Your task to perform on an android device: Show me recent news Image 0: 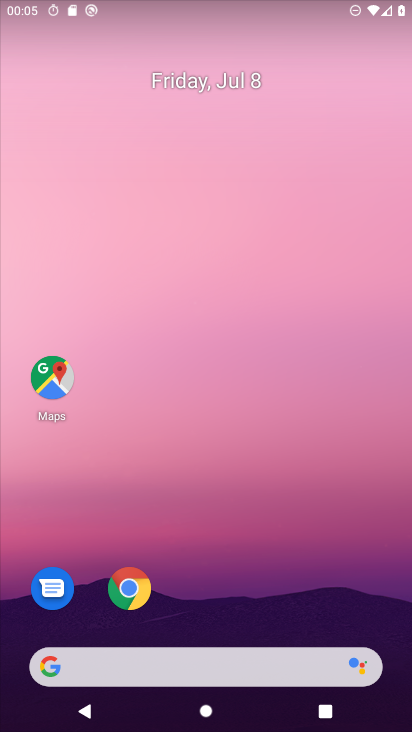
Step 0: drag from (255, 597) to (216, 89)
Your task to perform on an android device: Show me recent news Image 1: 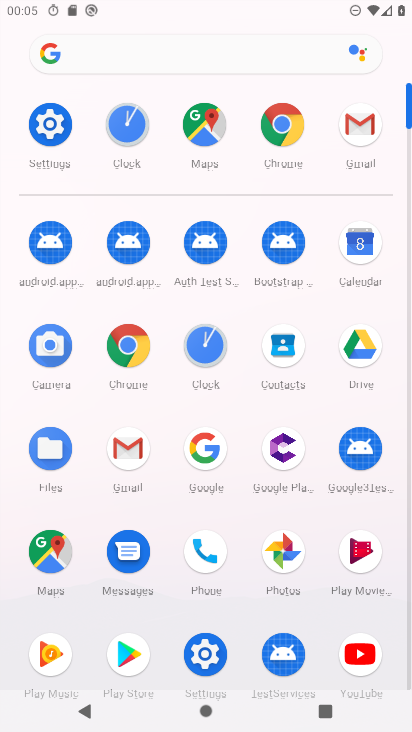
Step 1: click (278, 109)
Your task to perform on an android device: Show me recent news Image 2: 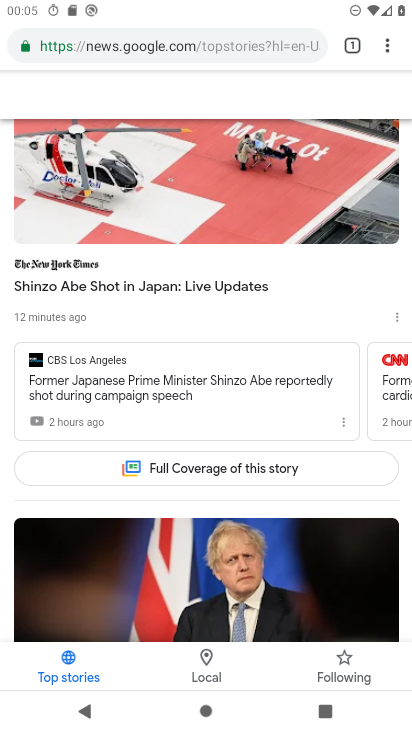
Step 2: click (245, 48)
Your task to perform on an android device: Show me recent news Image 3: 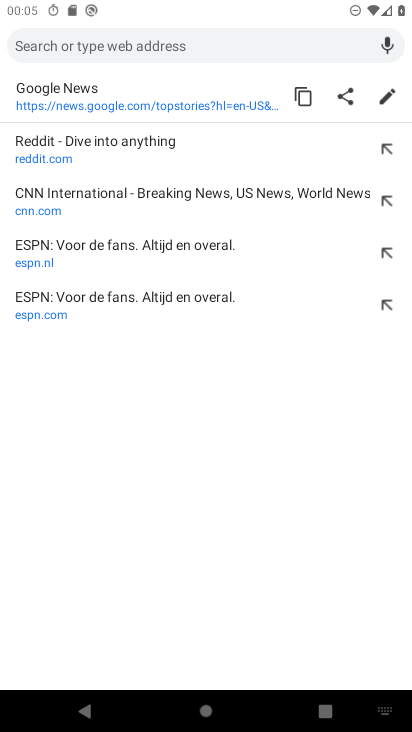
Step 3: task complete